Your task to perform on an android device: Open battery settings Image 0: 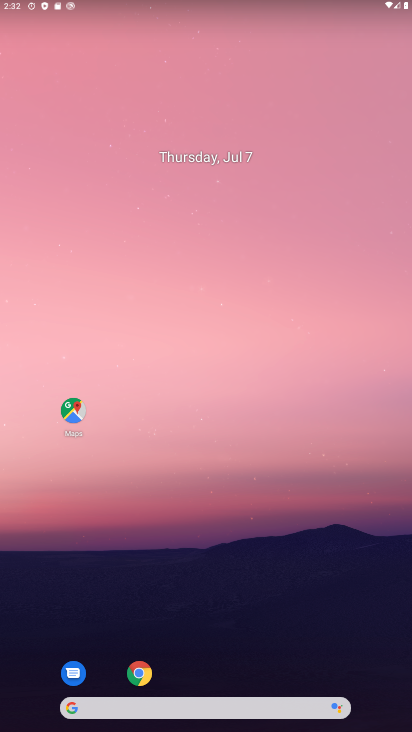
Step 0: drag from (214, 674) to (113, 106)
Your task to perform on an android device: Open battery settings Image 1: 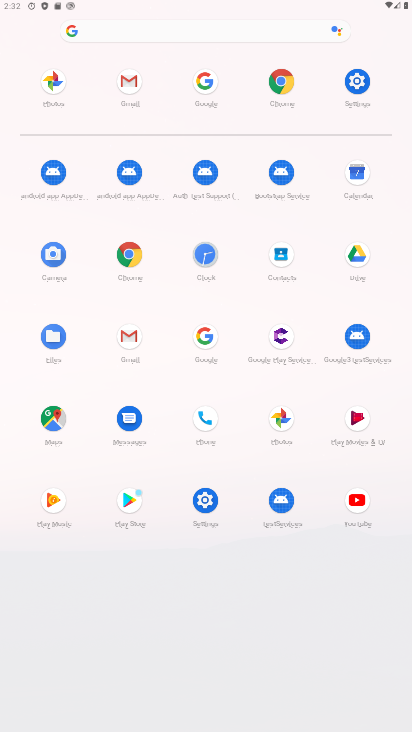
Step 1: click (354, 86)
Your task to perform on an android device: Open battery settings Image 2: 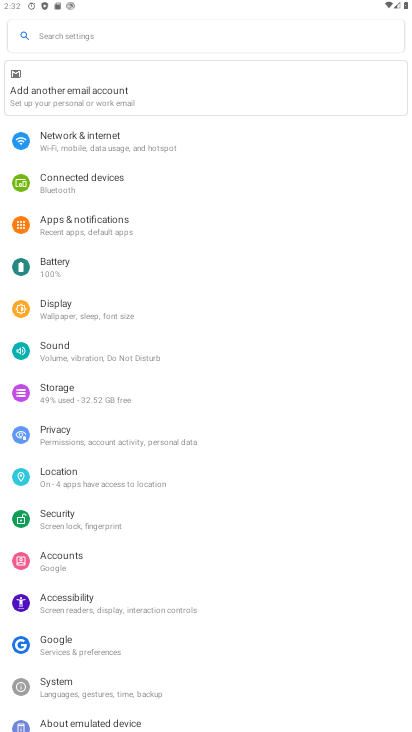
Step 2: click (56, 270)
Your task to perform on an android device: Open battery settings Image 3: 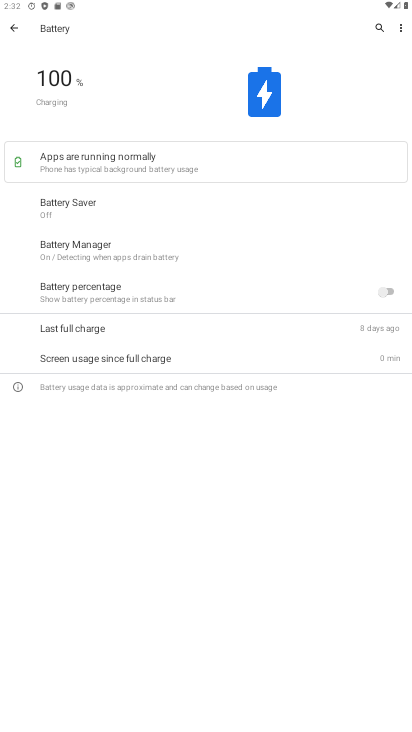
Step 3: task complete